Your task to perform on an android device: turn off picture-in-picture Image 0: 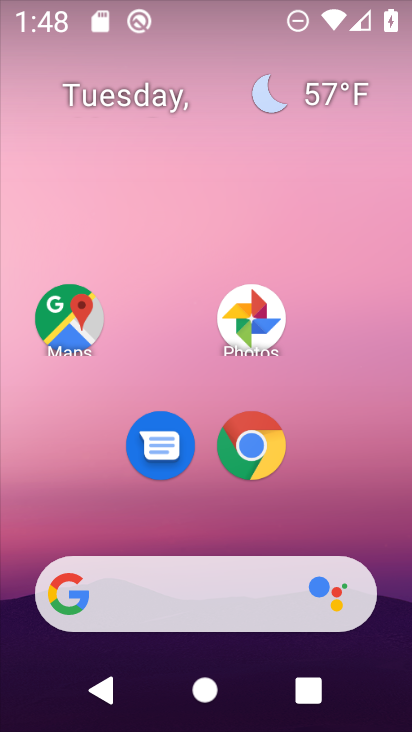
Step 0: drag from (384, 523) to (400, 190)
Your task to perform on an android device: turn off picture-in-picture Image 1: 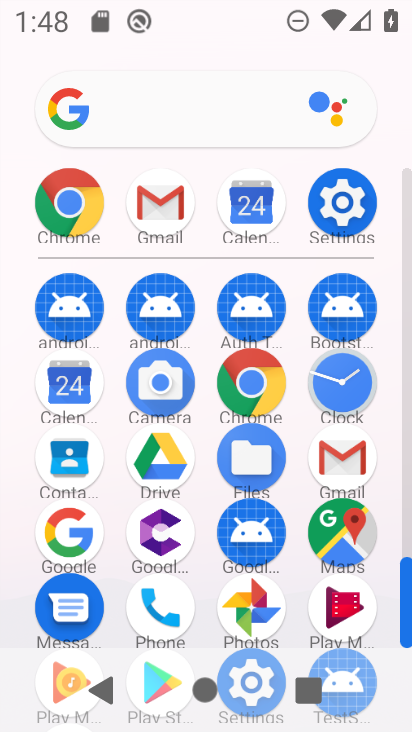
Step 1: drag from (393, 514) to (402, 298)
Your task to perform on an android device: turn off picture-in-picture Image 2: 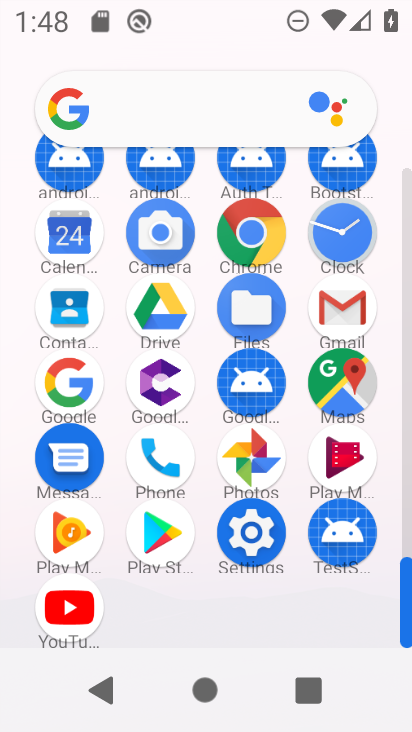
Step 2: click (266, 538)
Your task to perform on an android device: turn off picture-in-picture Image 3: 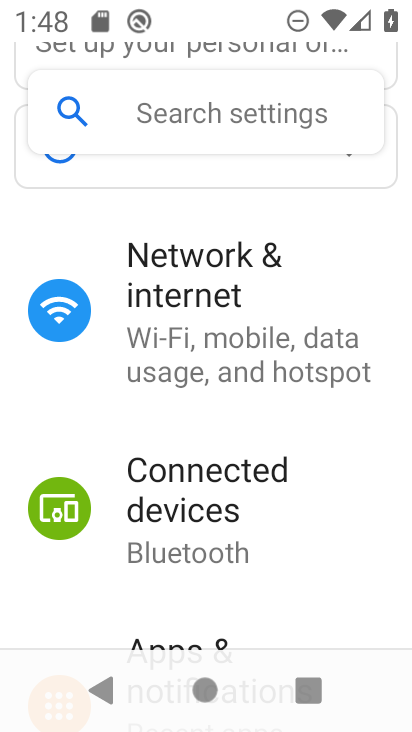
Step 3: drag from (336, 574) to (351, 460)
Your task to perform on an android device: turn off picture-in-picture Image 4: 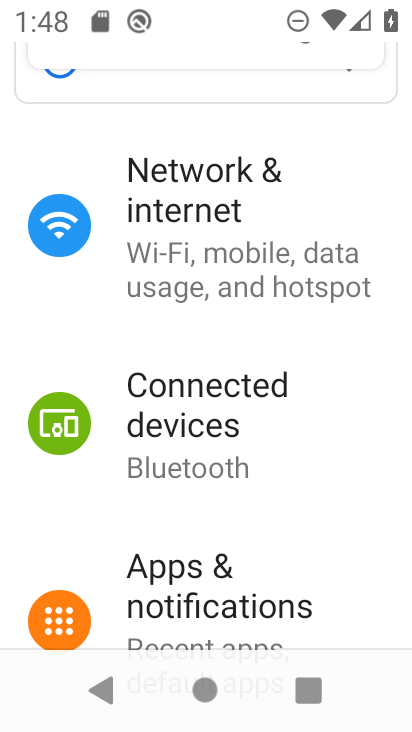
Step 4: drag from (364, 563) to (354, 434)
Your task to perform on an android device: turn off picture-in-picture Image 5: 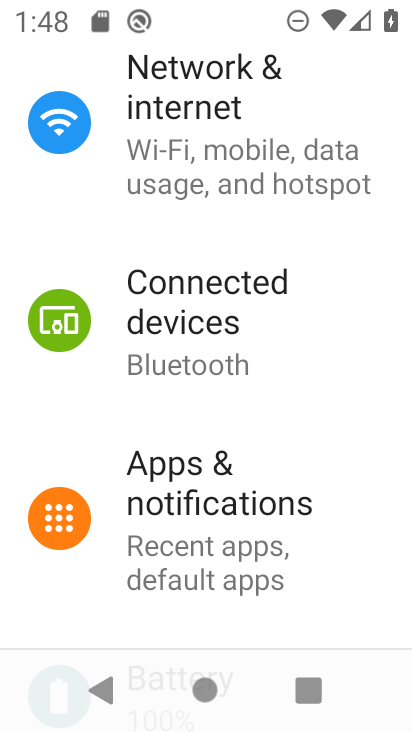
Step 5: drag from (349, 587) to (347, 475)
Your task to perform on an android device: turn off picture-in-picture Image 6: 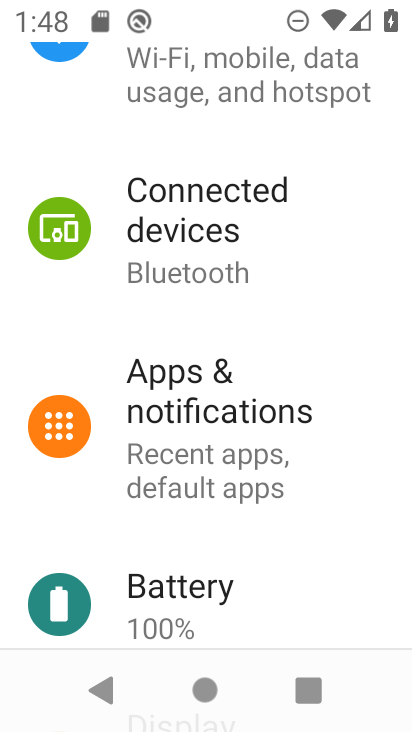
Step 6: drag from (345, 576) to (345, 446)
Your task to perform on an android device: turn off picture-in-picture Image 7: 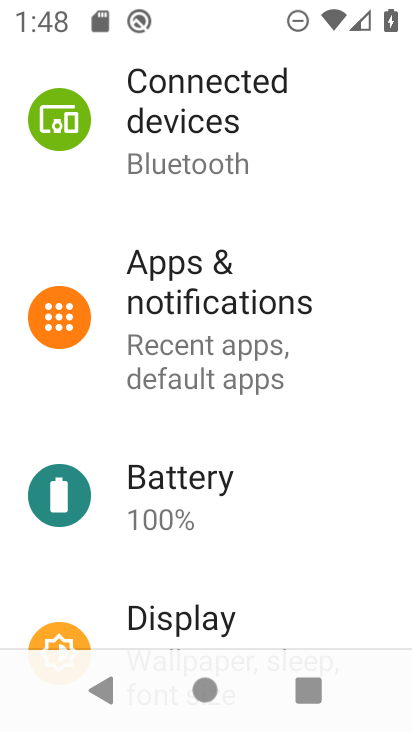
Step 7: click (236, 343)
Your task to perform on an android device: turn off picture-in-picture Image 8: 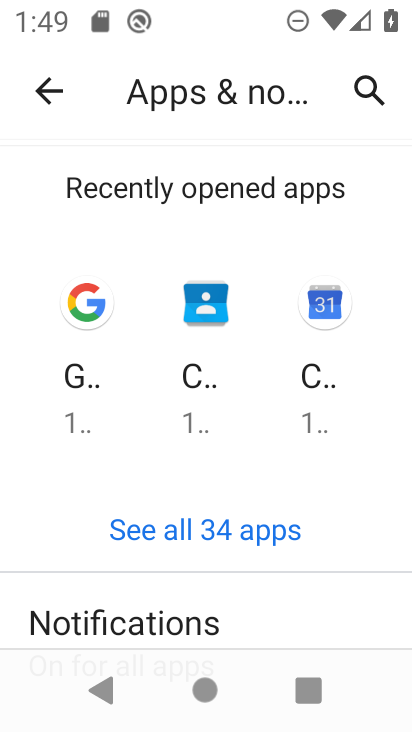
Step 8: drag from (319, 526) to (344, 403)
Your task to perform on an android device: turn off picture-in-picture Image 9: 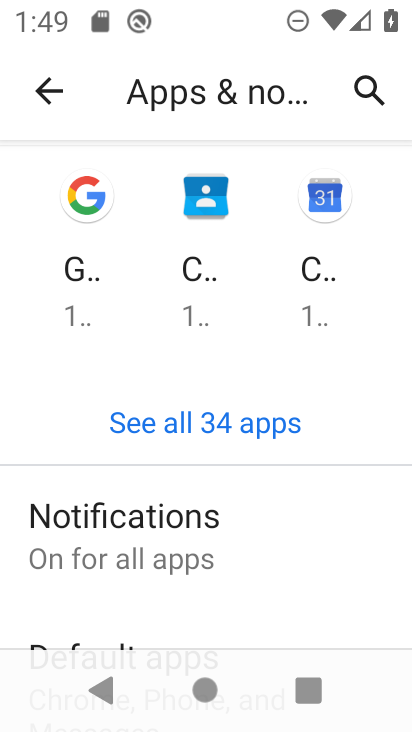
Step 9: drag from (349, 531) to (346, 426)
Your task to perform on an android device: turn off picture-in-picture Image 10: 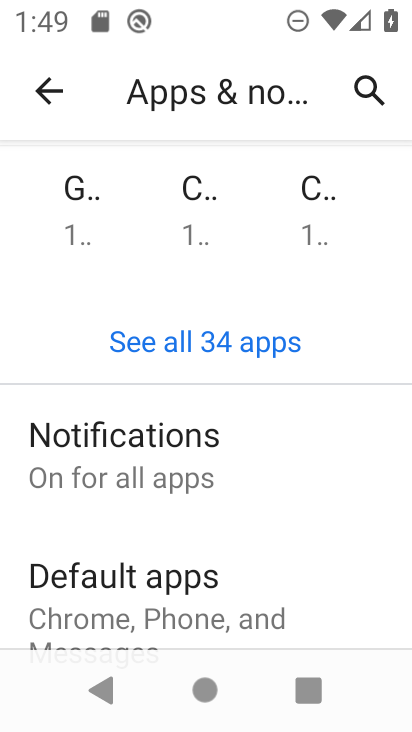
Step 10: drag from (358, 534) to (351, 408)
Your task to perform on an android device: turn off picture-in-picture Image 11: 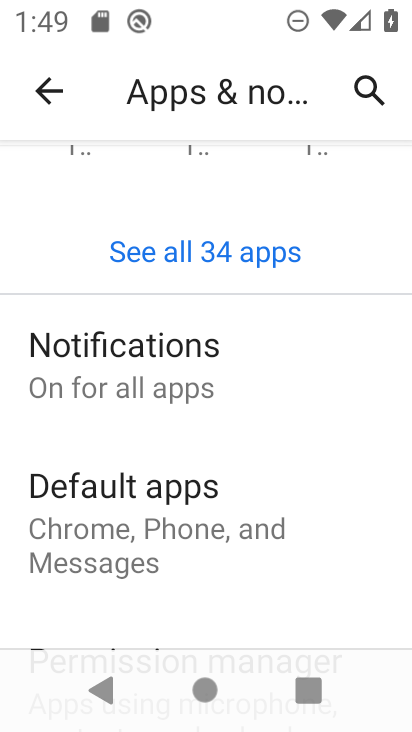
Step 11: drag from (331, 548) to (322, 456)
Your task to perform on an android device: turn off picture-in-picture Image 12: 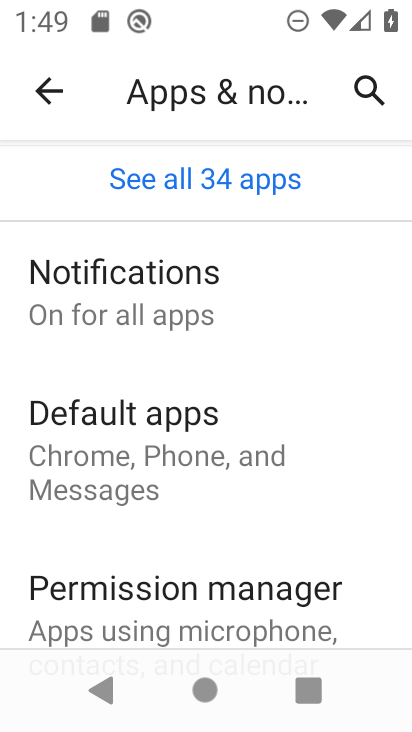
Step 12: drag from (346, 541) to (348, 419)
Your task to perform on an android device: turn off picture-in-picture Image 13: 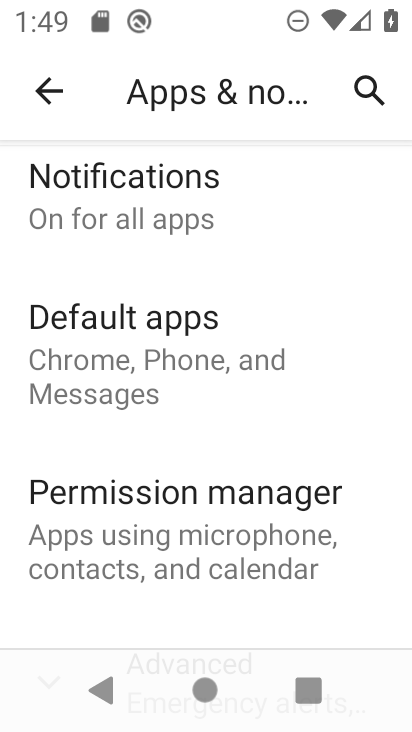
Step 13: drag from (341, 579) to (351, 491)
Your task to perform on an android device: turn off picture-in-picture Image 14: 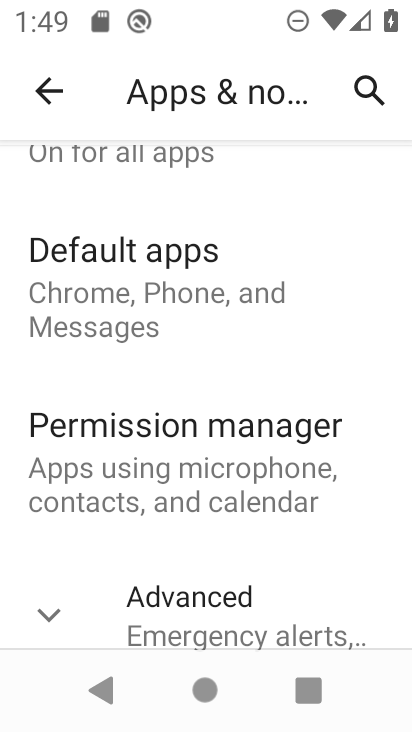
Step 14: drag from (354, 554) to (355, 448)
Your task to perform on an android device: turn off picture-in-picture Image 15: 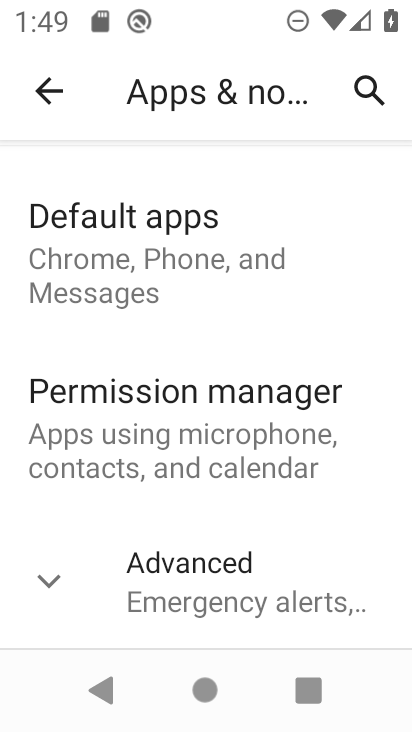
Step 15: click (314, 572)
Your task to perform on an android device: turn off picture-in-picture Image 16: 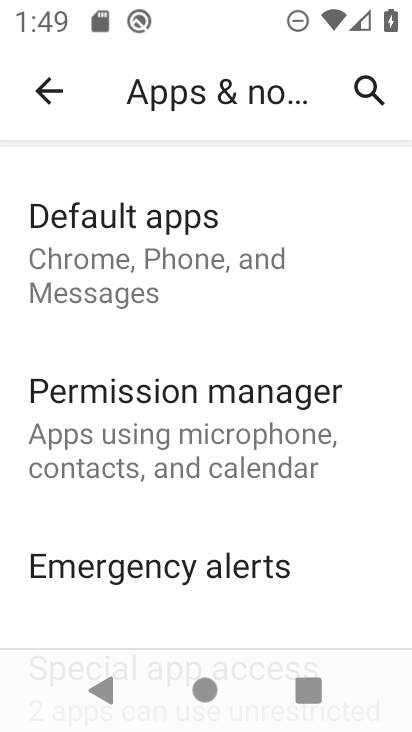
Step 16: drag from (340, 581) to (340, 470)
Your task to perform on an android device: turn off picture-in-picture Image 17: 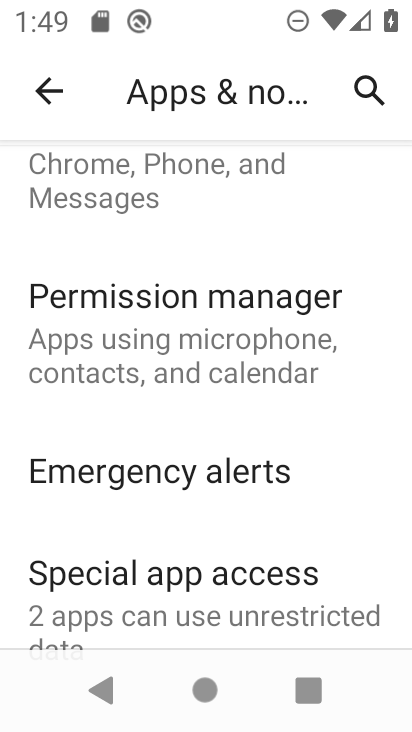
Step 17: drag from (351, 582) to (343, 492)
Your task to perform on an android device: turn off picture-in-picture Image 18: 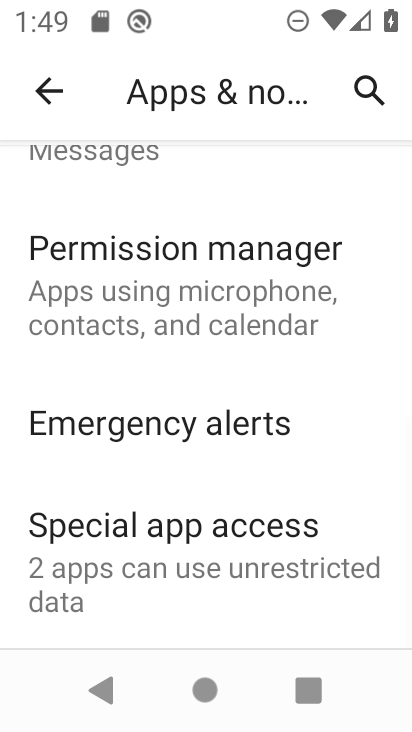
Step 18: click (317, 549)
Your task to perform on an android device: turn off picture-in-picture Image 19: 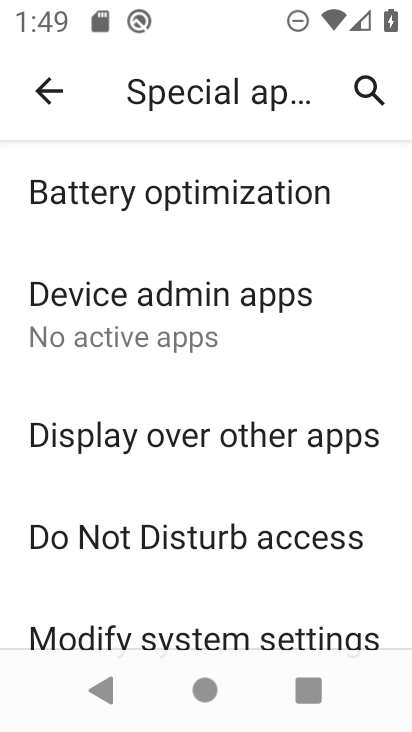
Step 19: drag from (320, 571) to (320, 475)
Your task to perform on an android device: turn off picture-in-picture Image 20: 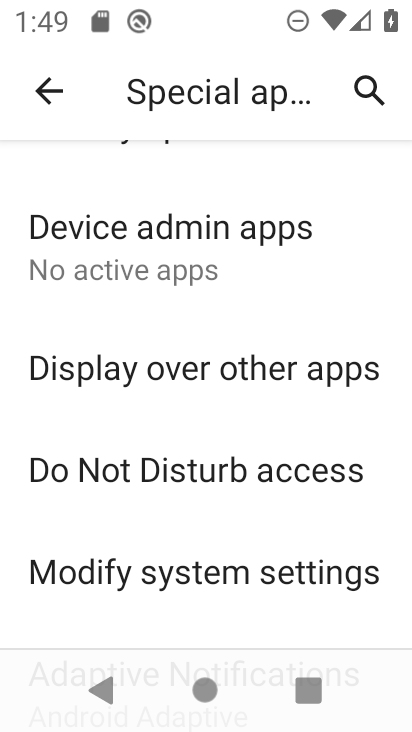
Step 20: drag from (322, 612) to (330, 525)
Your task to perform on an android device: turn off picture-in-picture Image 21: 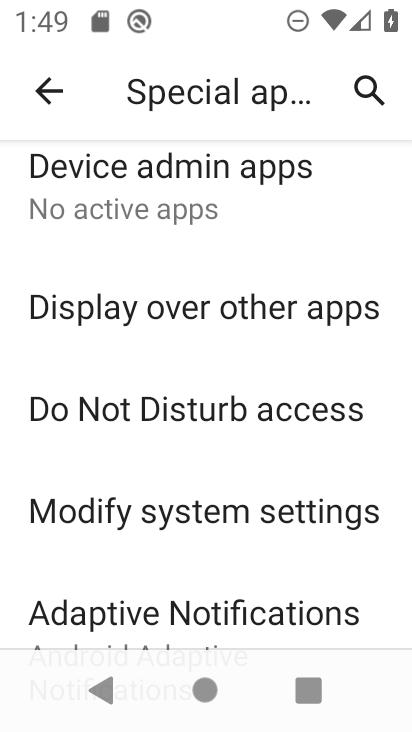
Step 21: drag from (344, 602) to (338, 521)
Your task to perform on an android device: turn off picture-in-picture Image 22: 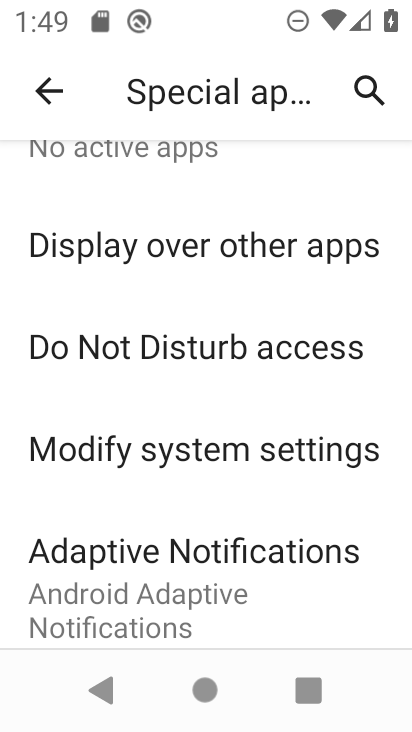
Step 22: drag from (374, 530) to (367, 409)
Your task to perform on an android device: turn off picture-in-picture Image 23: 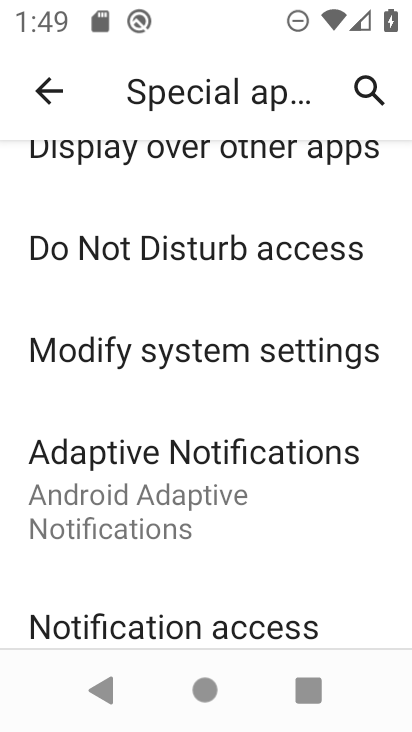
Step 23: drag from (335, 543) to (322, 417)
Your task to perform on an android device: turn off picture-in-picture Image 24: 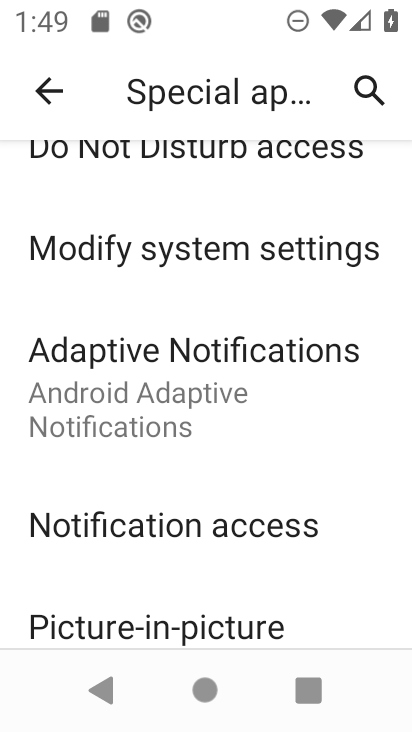
Step 24: drag from (297, 581) to (292, 455)
Your task to perform on an android device: turn off picture-in-picture Image 25: 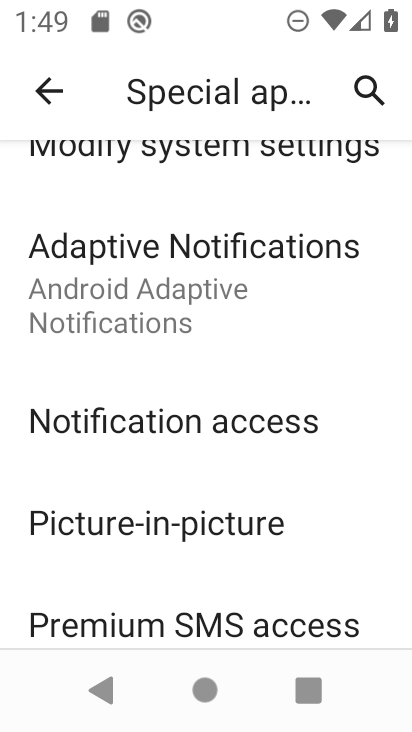
Step 25: drag from (323, 520) to (307, 387)
Your task to perform on an android device: turn off picture-in-picture Image 26: 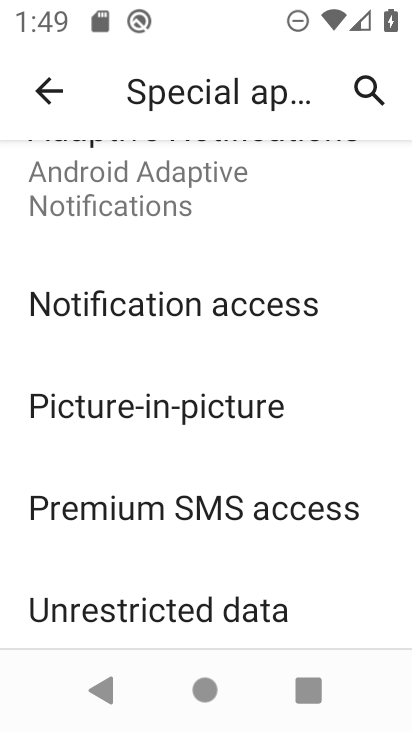
Step 26: click (207, 423)
Your task to perform on an android device: turn off picture-in-picture Image 27: 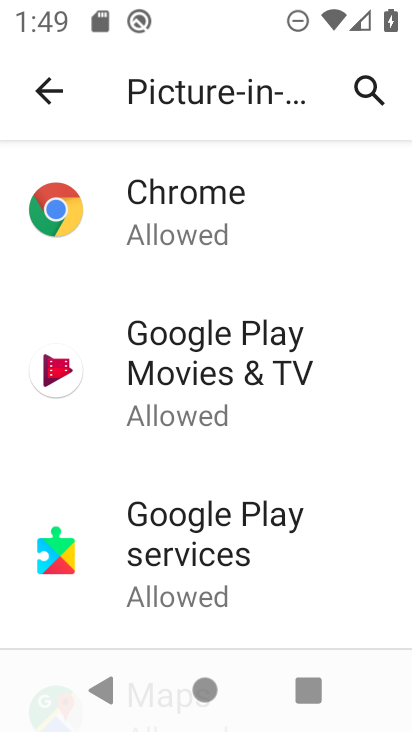
Step 27: drag from (314, 500) to (320, 340)
Your task to perform on an android device: turn off picture-in-picture Image 28: 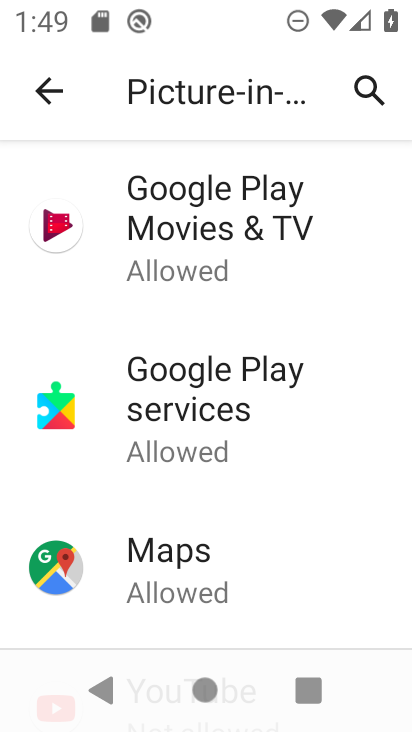
Step 28: drag from (346, 536) to (341, 378)
Your task to perform on an android device: turn off picture-in-picture Image 29: 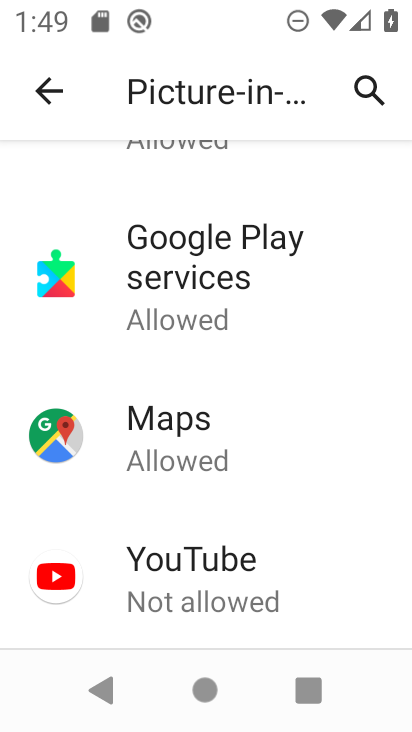
Step 29: drag from (341, 595) to (308, 433)
Your task to perform on an android device: turn off picture-in-picture Image 30: 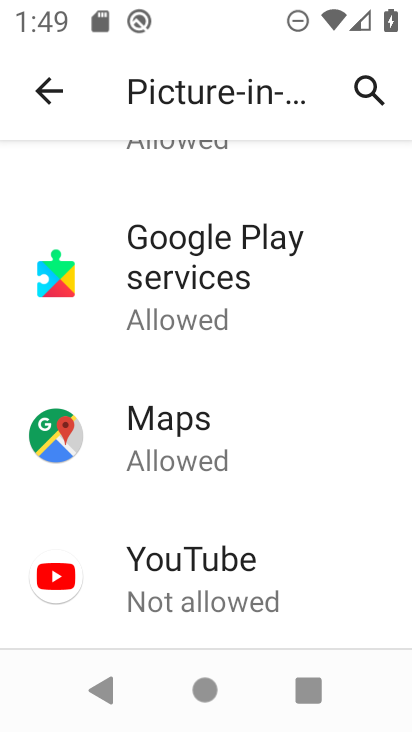
Step 30: click (303, 586)
Your task to perform on an android device: turn off picture-in-picture Image 31: 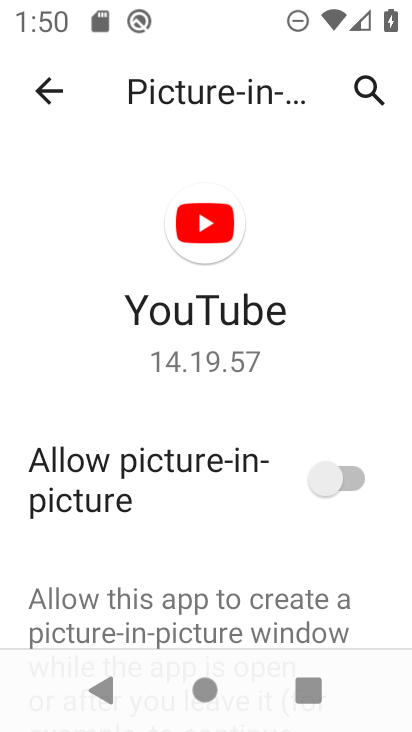
Step 31: task complete